Your task to perform on an android device: change text size in settings app Image 0: 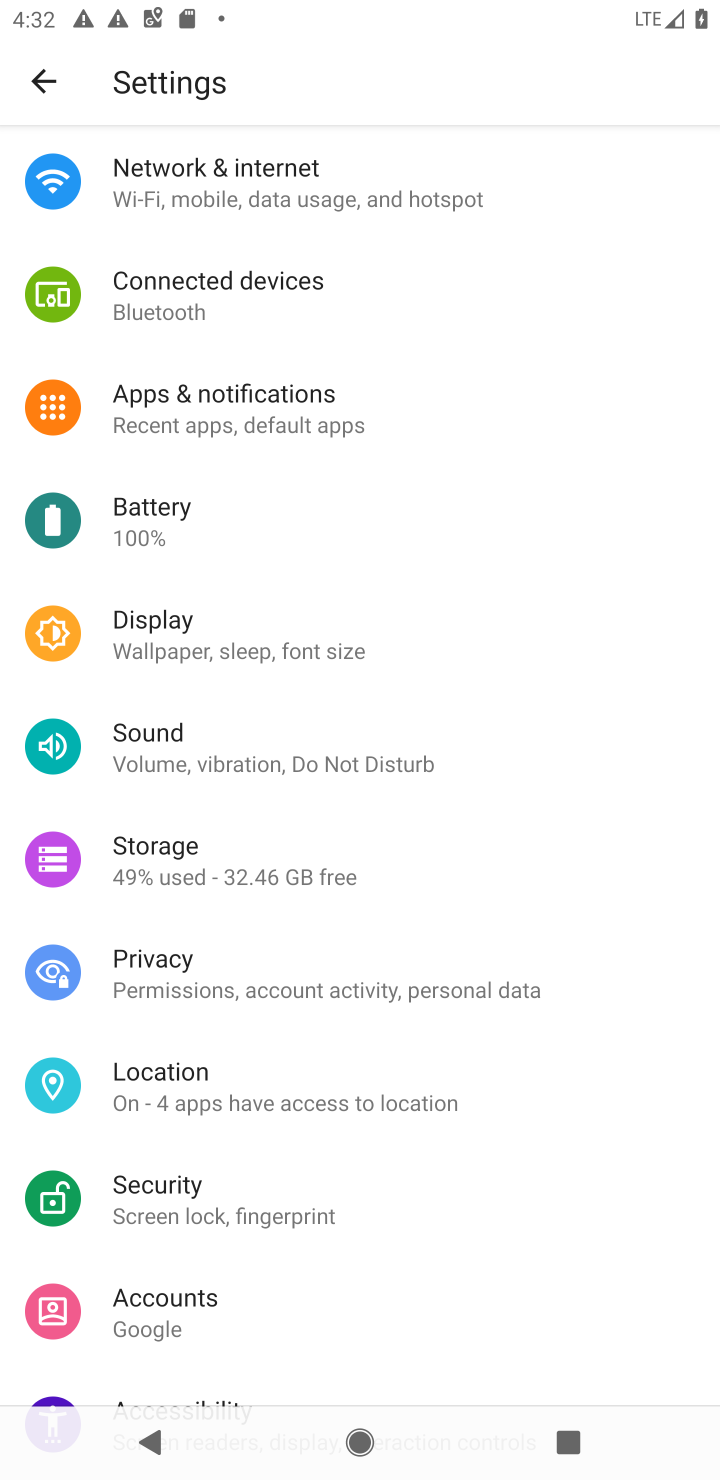
Step 0: press home button
Your task to perform on an android device: change text size in settings app Image 1: 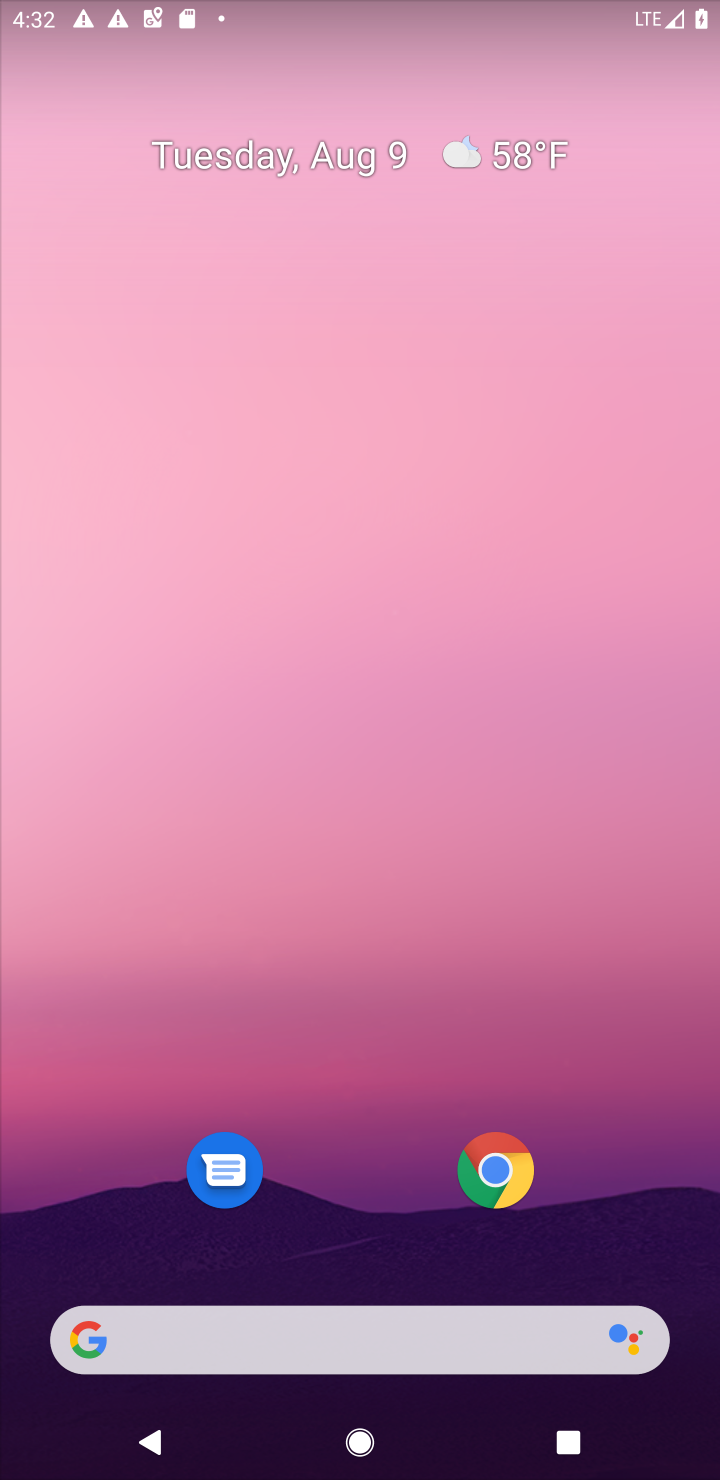
Step 1: drag from (373, 611) to (366, 17)
Your task to perform on an android device: change text size in settings app Image 2: 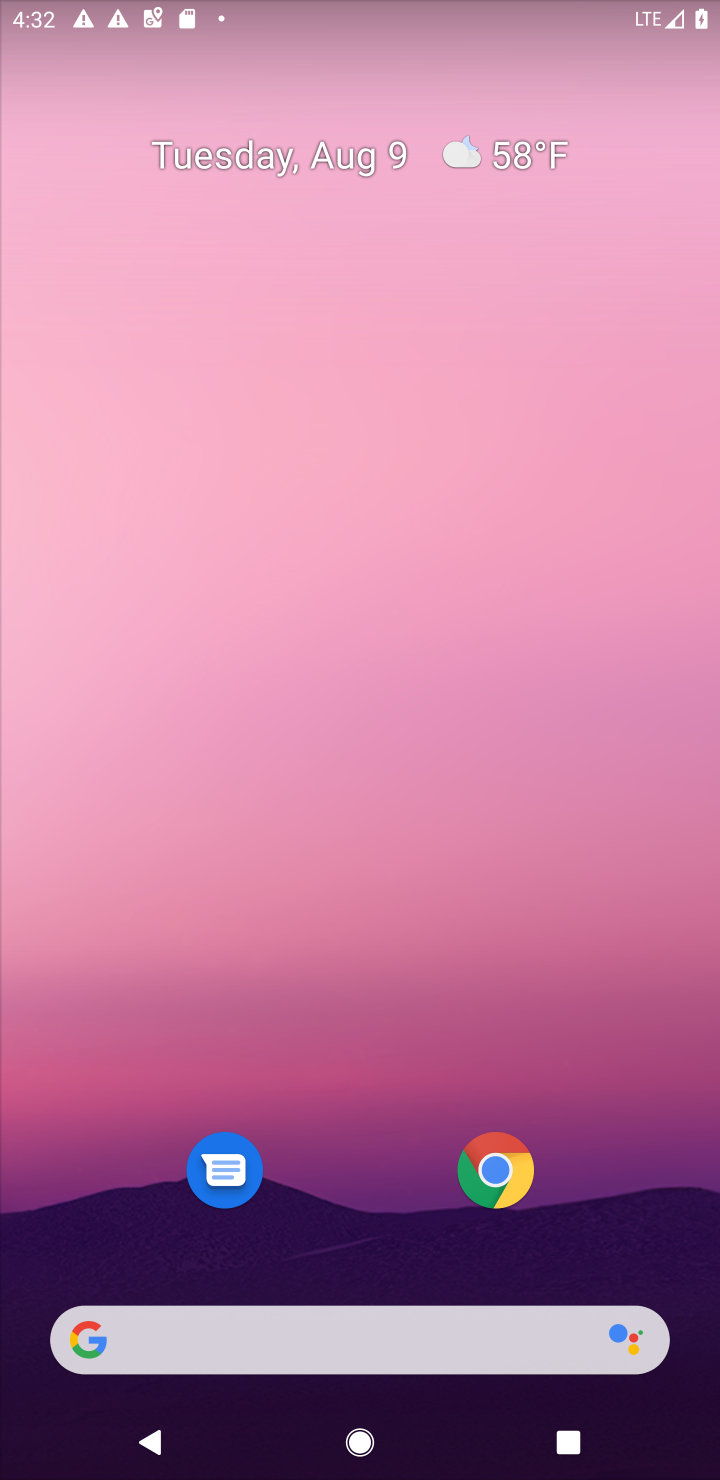
Step 2: drag from (386, 1273) to (699, 1318)
Your task to perform on an android device: change text size in settings app Image 3: 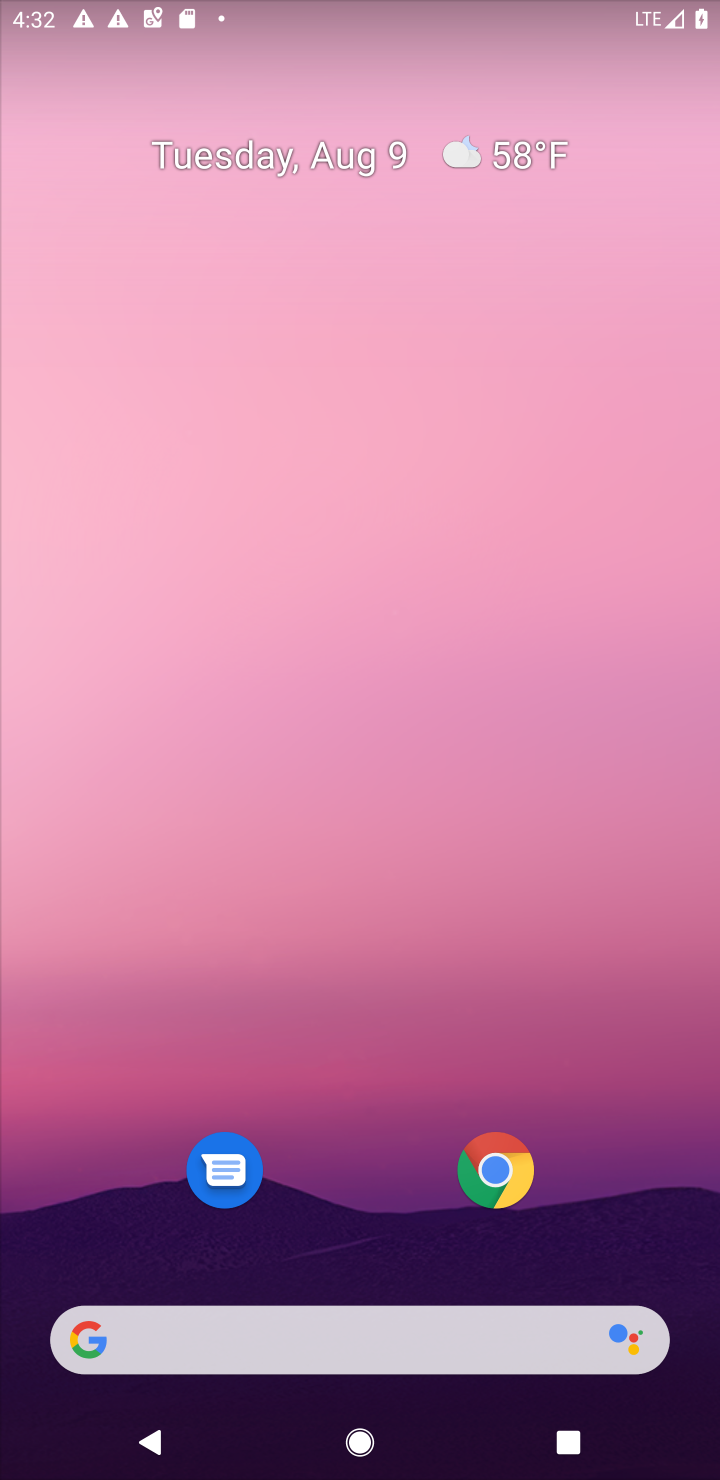
Step 3: drag from (423, 337) to (443, 108)
Your task to perform on an android device: change text size in settings app Image 4: 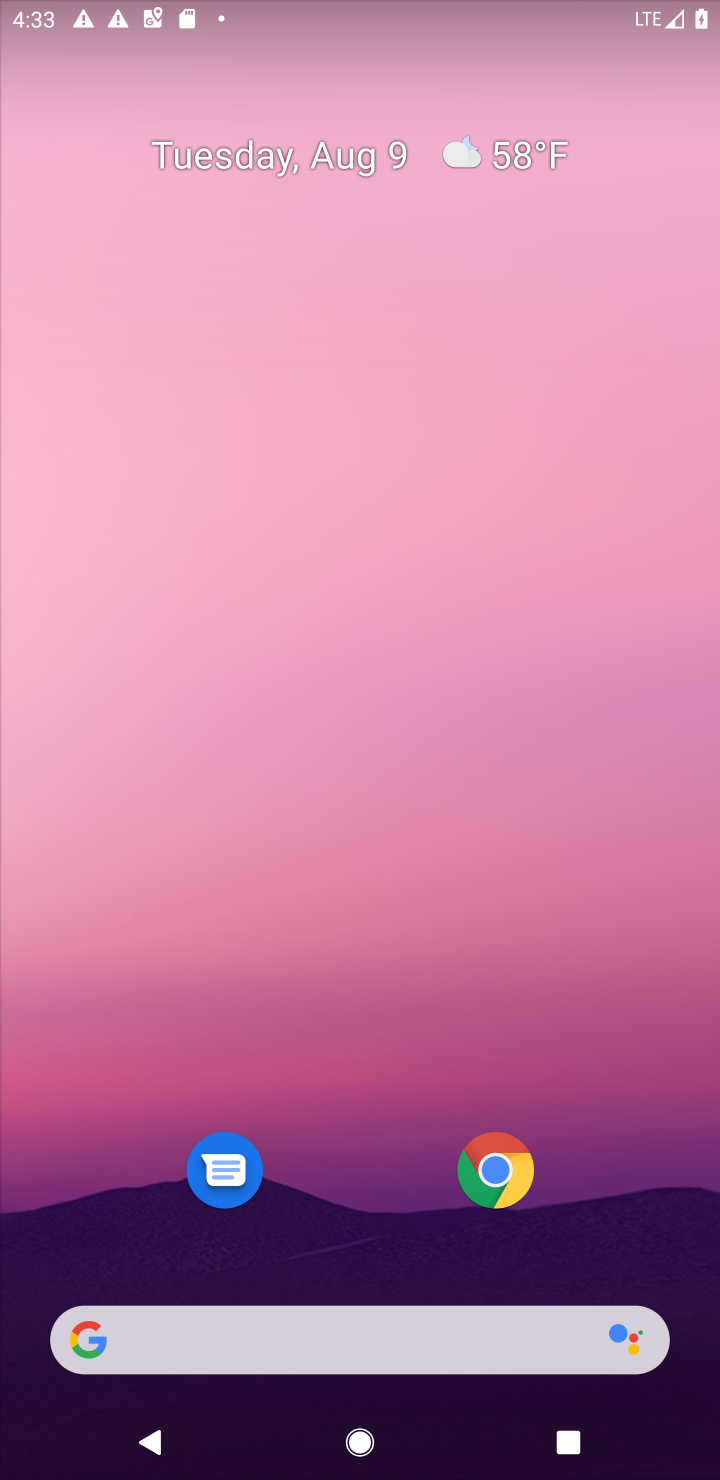
Step 4: drag from (354, 1263) to (582, 16)
Your task to perform on an android device: change text size in settings app Image 5: 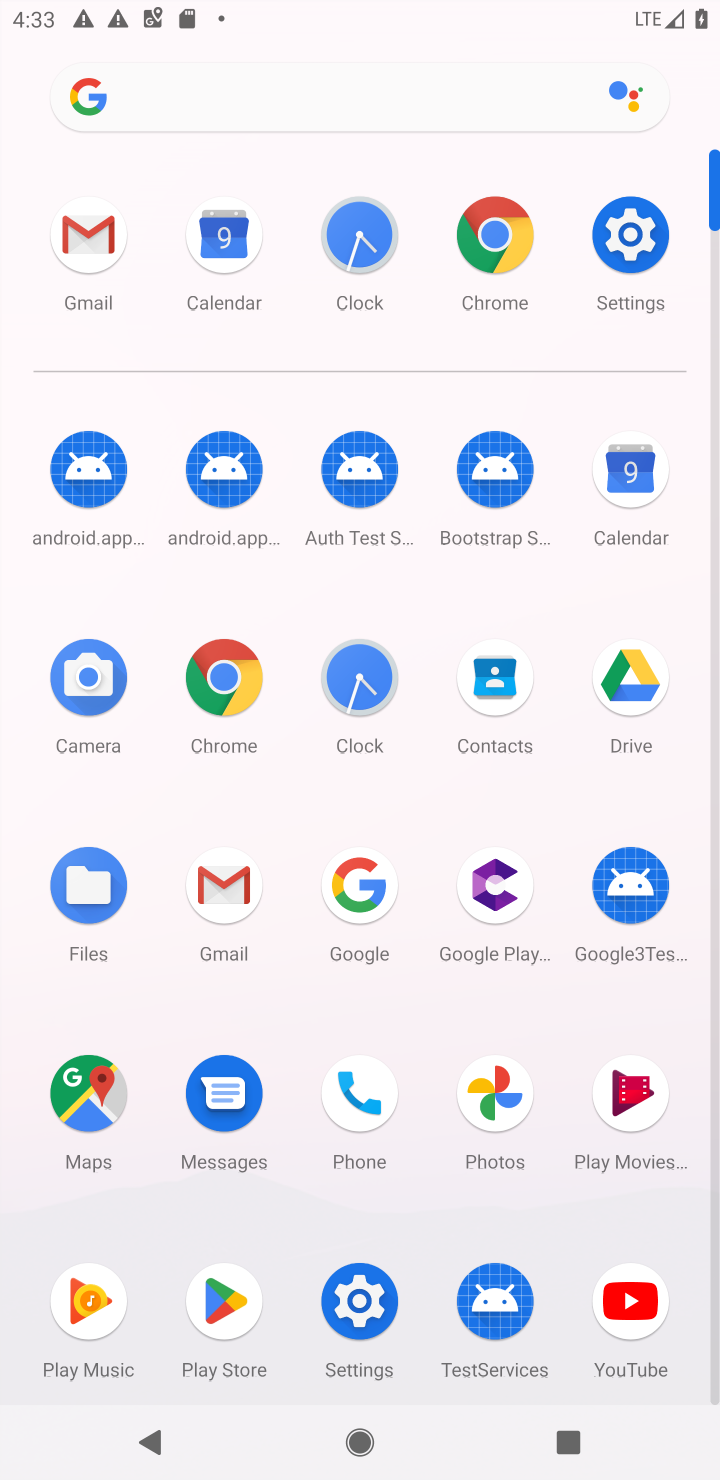
Step 5: click (631, 250)
Your task to perform on an android device: change text size in settings app Image 6: 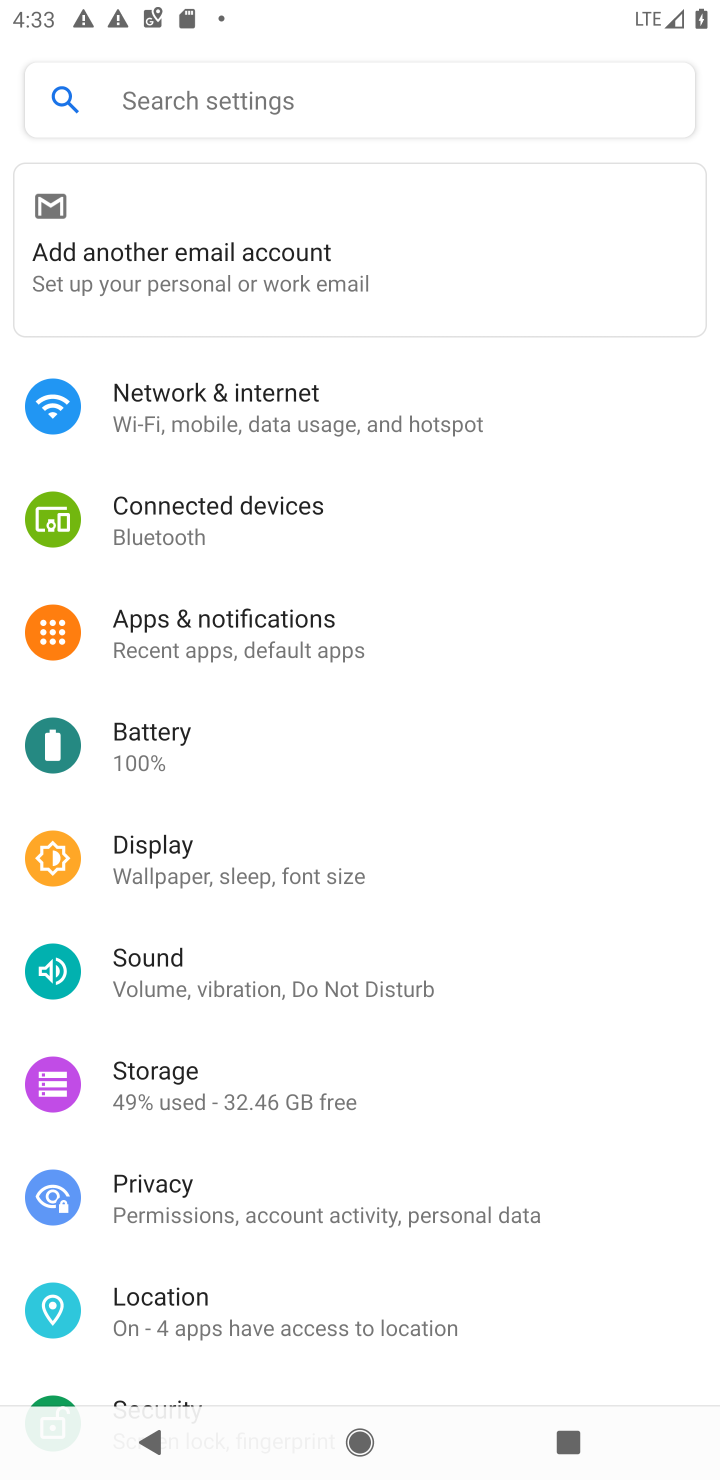
Step 6: click (200, 869)
Your task to perform on an android device: change text size in settings app Image 7: 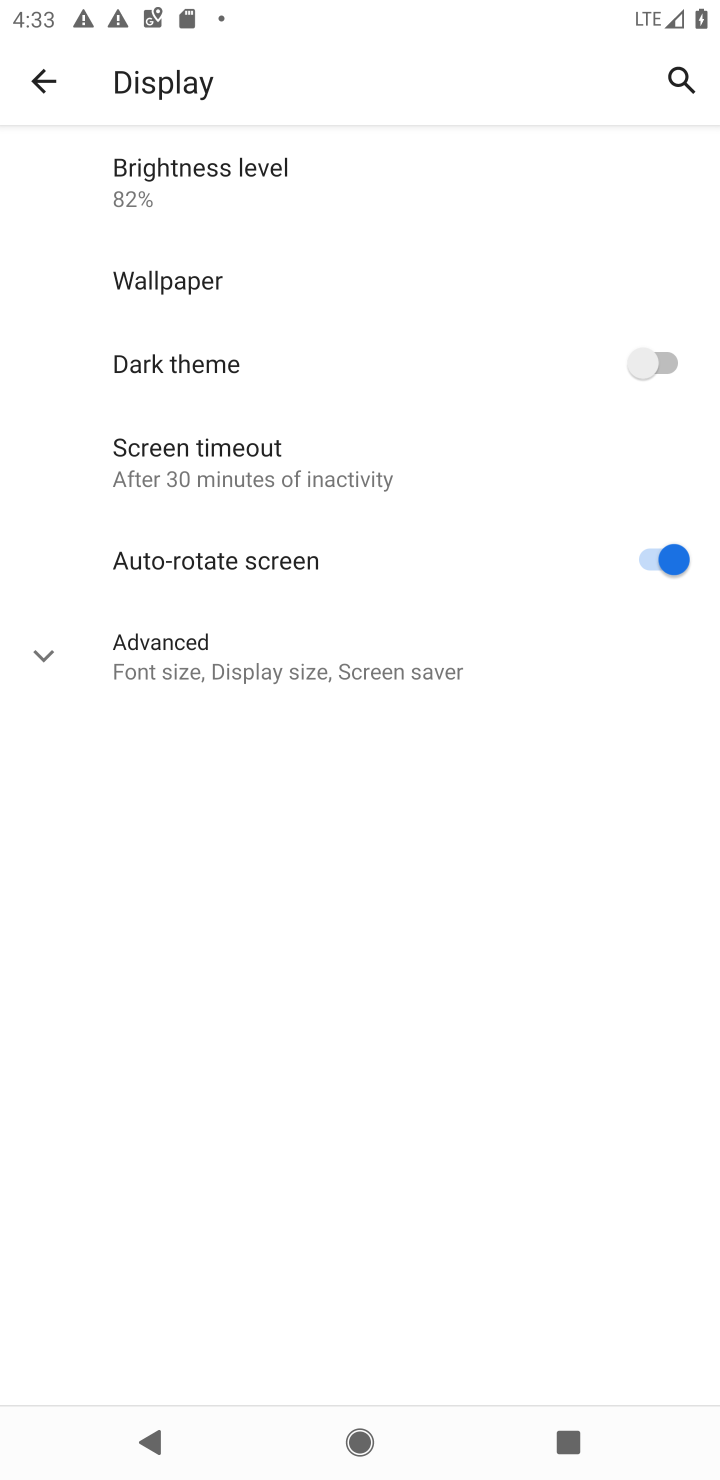
Step 7: click (85, 648)
Your task to perform on an android device: change text size in settings app Image 8: 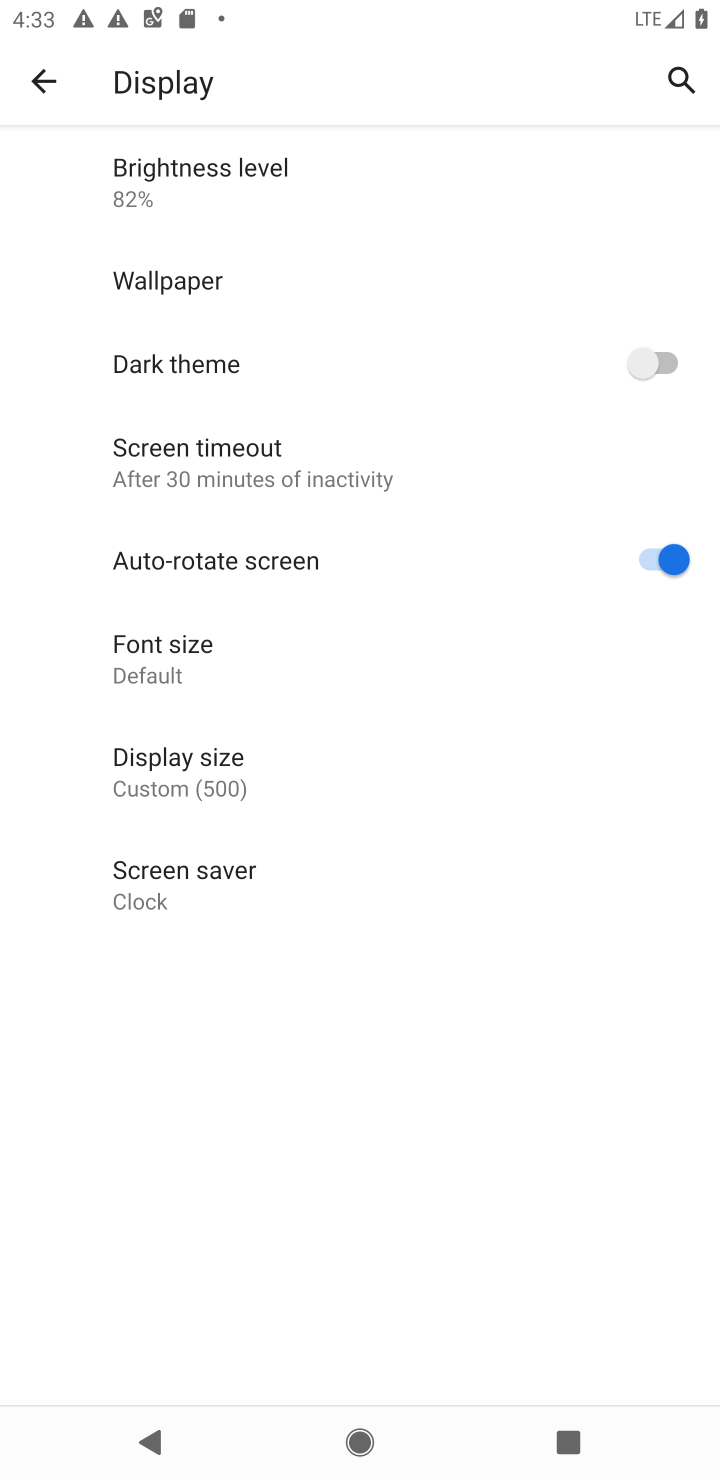
Step 8: click (191, 655)
Your task to perform on an android device: change text size in settings app Image 9: 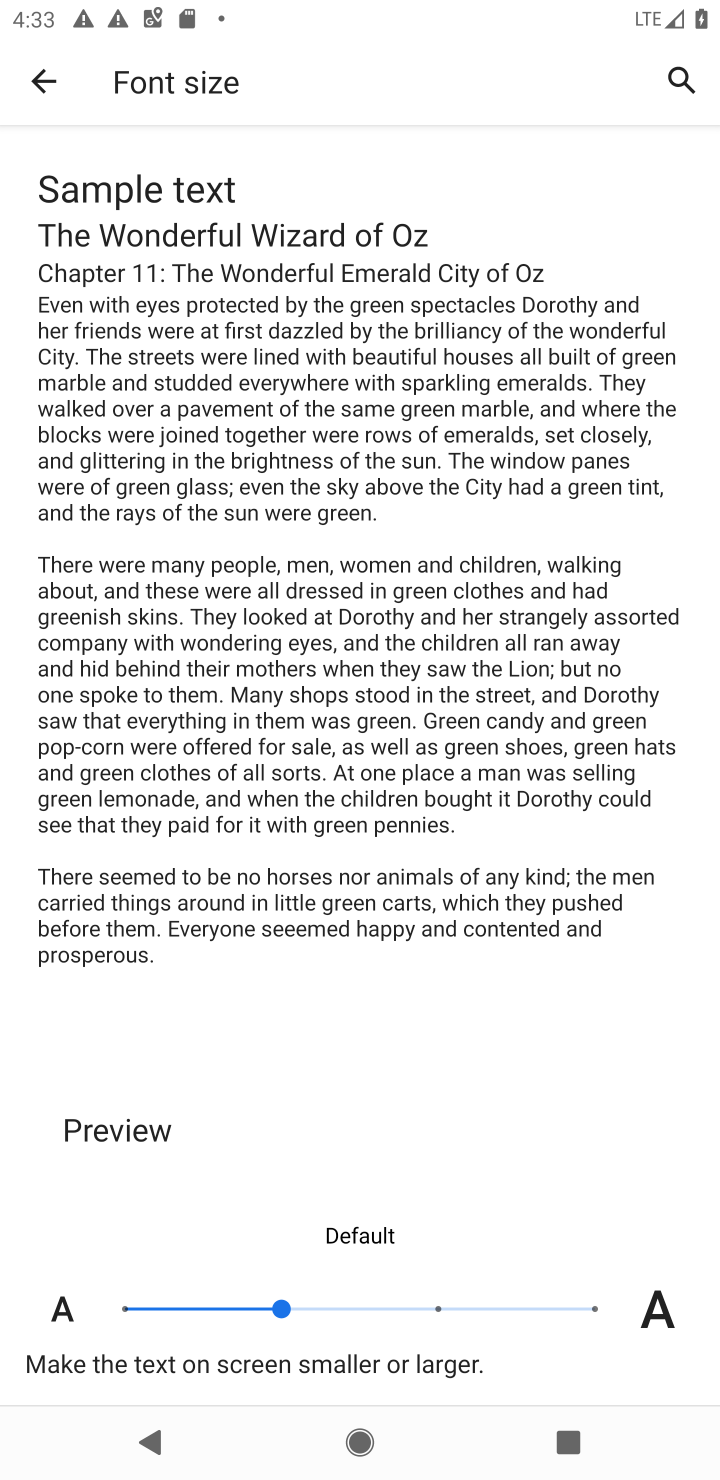
Step 9: click (440, 1292)
Your task to perform on an android device: change text size in settings app Image 10: 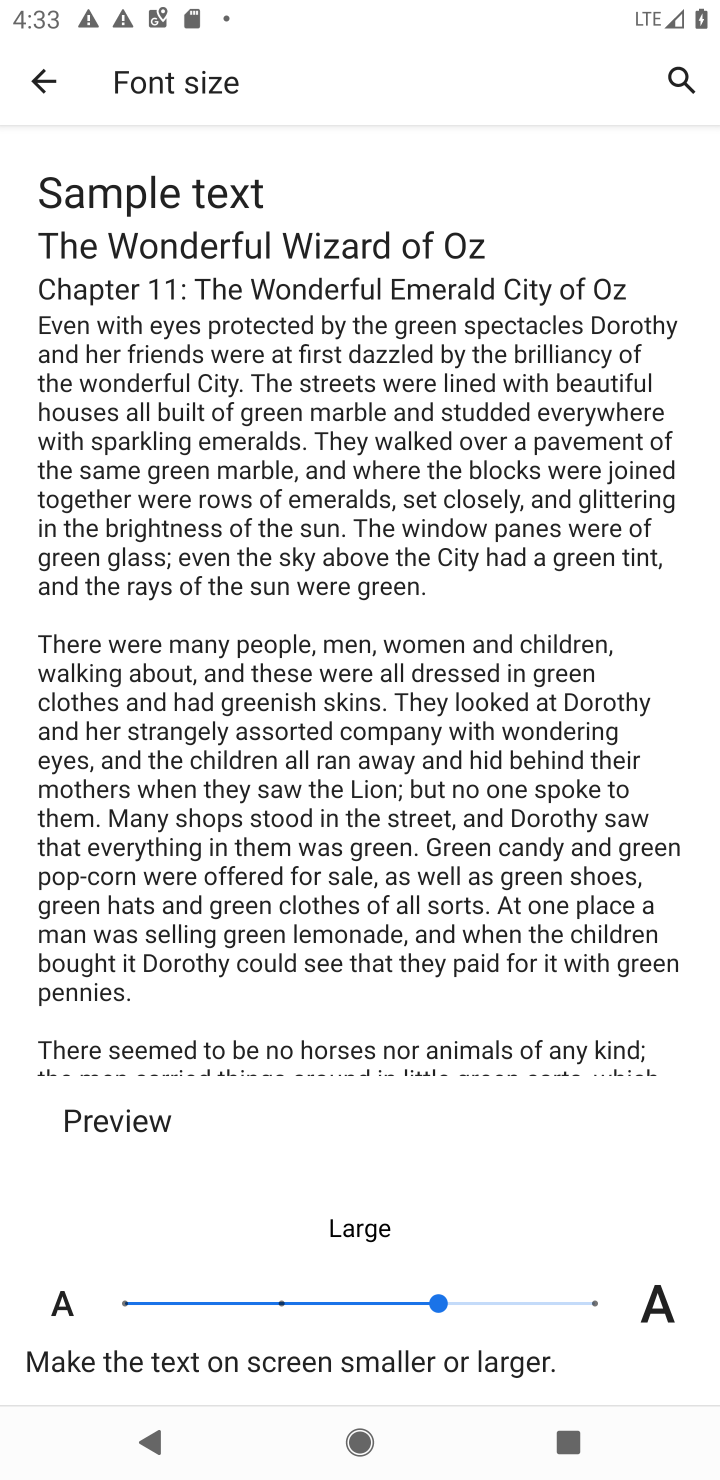
Step 10: click (596, 1298)
Your task to perform on an android device: change text size in settings app Image 11: 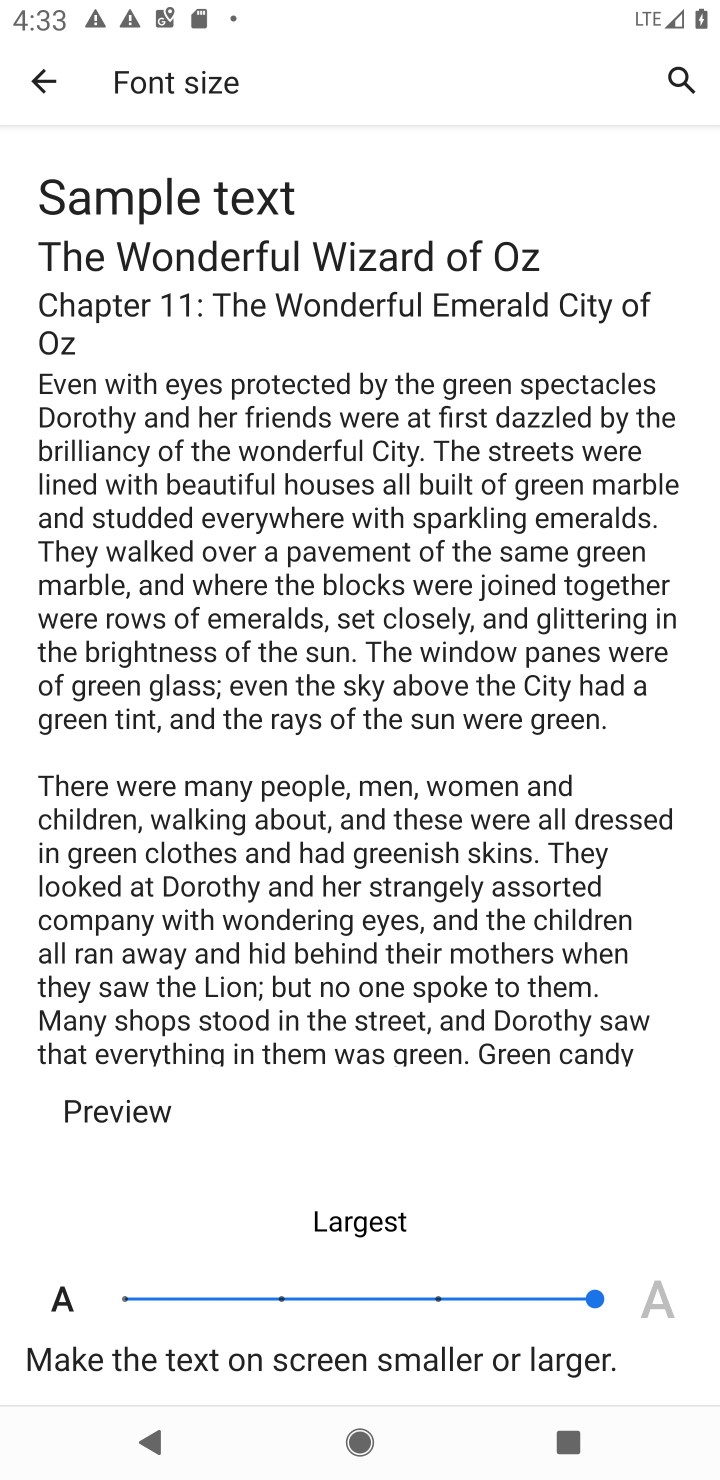
Step 11: task complete